Your task to perform on an android device: Open the stopwatch Image 0: 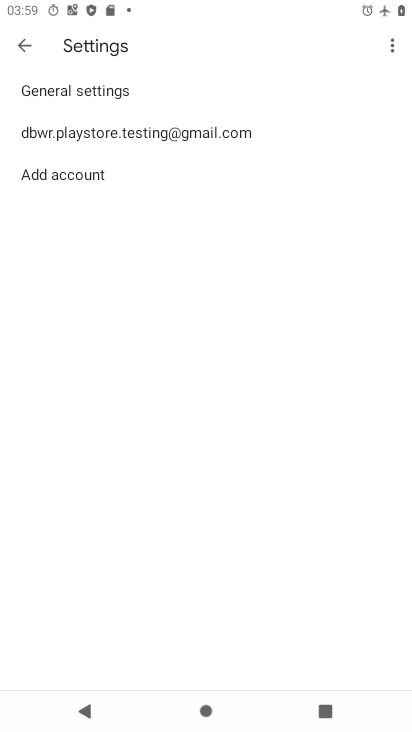
Step 0: press home button
Your task to perform on an android device: Open the stopwatch Image 1: 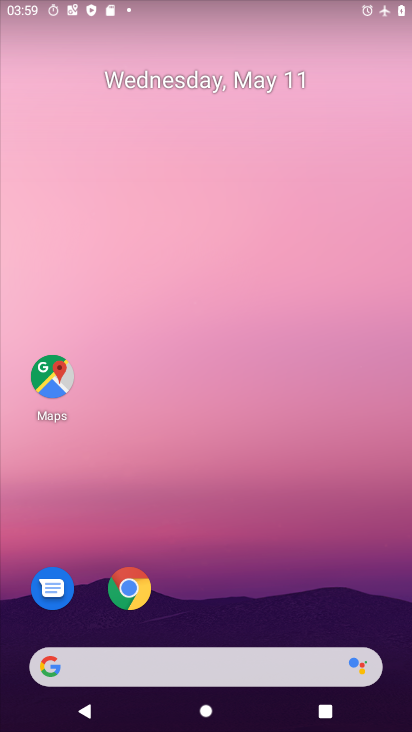
Step 1: drag from (214, 603) to (208, 169)
Your task to perform on an android device: Open the stopwatch Image 2: 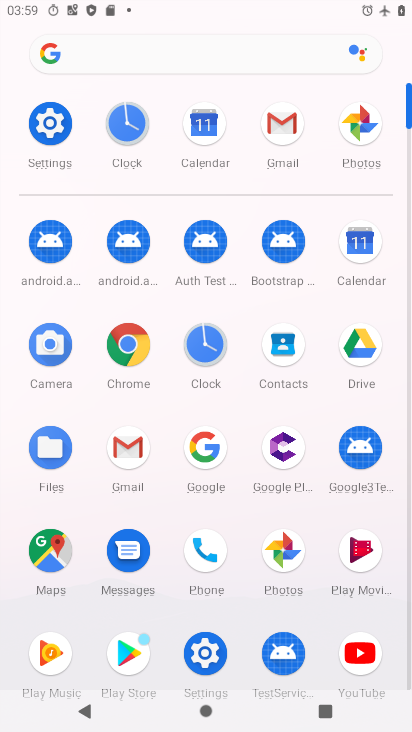
Step 2: click (130, 117)
Your task to perform on an android device: Open the stopwatch Image 3: 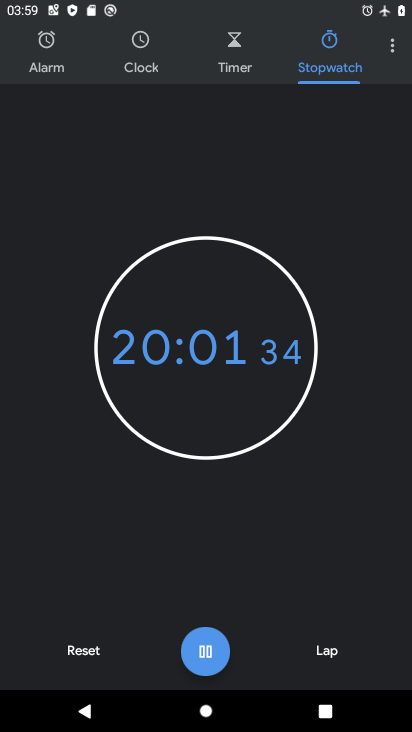
Step 3: task complete